Your task to perform on an android device: Open Google Chrome and click the shortcut for Amazon.com Image 0: 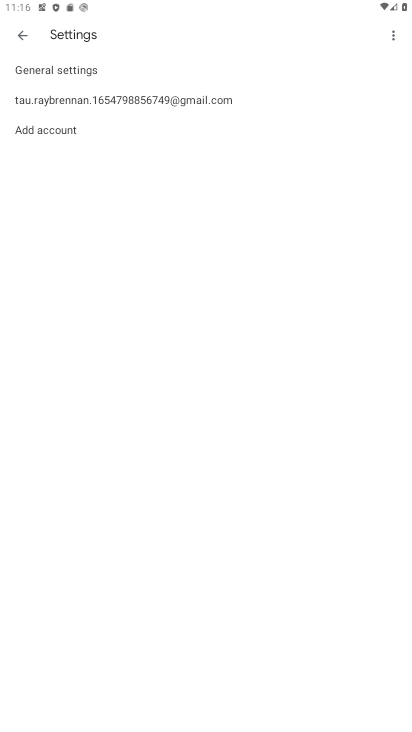
Step 0: press home button
Your task to perform on an android device: Open Google Chrome and click the shortcut for Amazon.com Image 1: 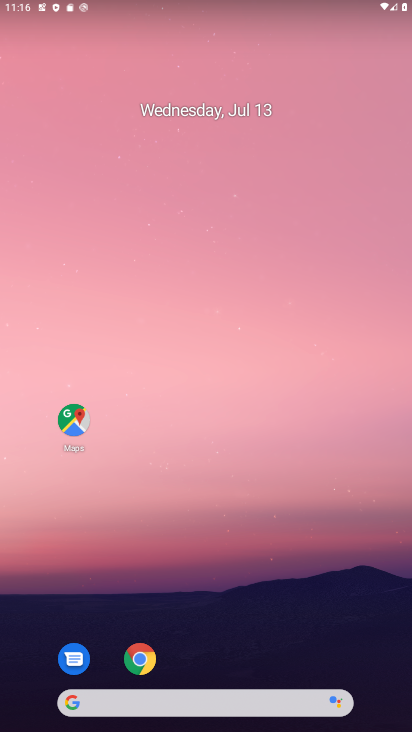
Step 1: drag from (296, 619) to (228, 135)
Your task to perform on an android device: Open Google Chrome and click the shortcut for Amazon.com Image 2: 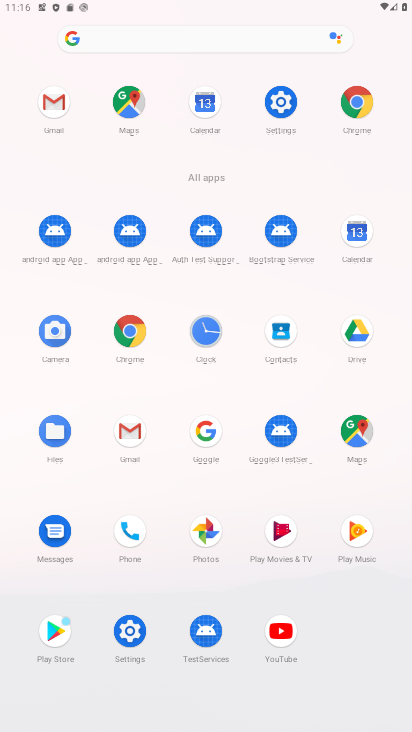
Step 2: click (352, 106)
Your task to perform on an android device: Open Google Chrome and click the shortcut for Amazon.com Image 3: 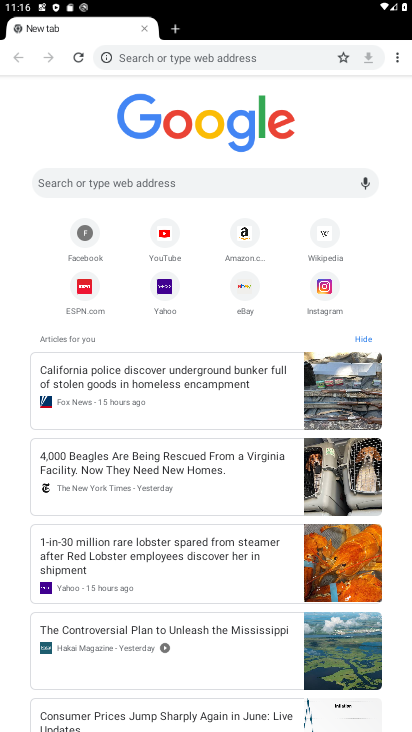
Step 3: click (243, 231)
Your task to perform on an android device: Open Google Chrome and click the shortcut for Amazon.com Image 4: 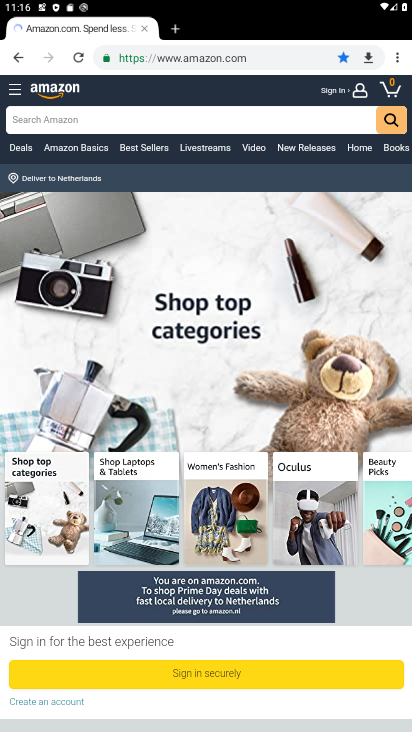
Step 4: task complete